Your task to perform on an android device: refresh tabs in the chrome app Image 0: 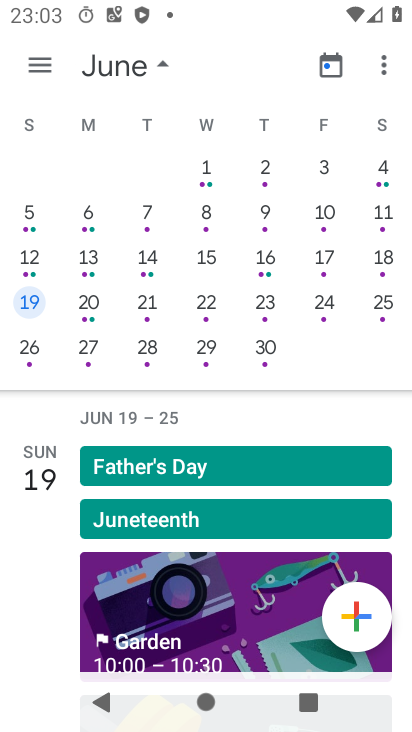
Step 0: press home button
Your task to perform on an android device: refresh tabs in the chrome app Image 1: 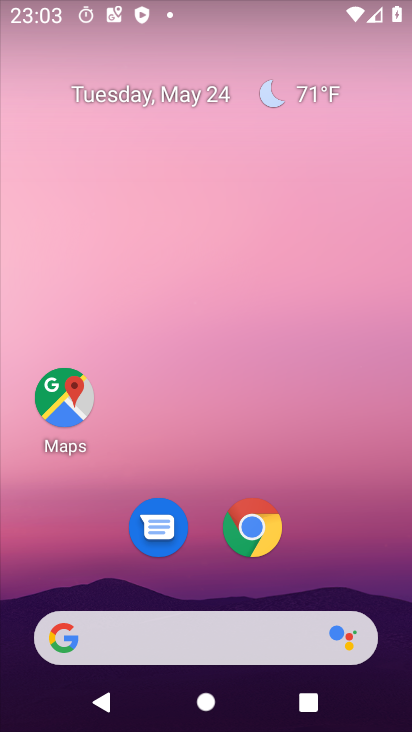
Step 1: click (256, 535)
Your task to perform on an android device: refresh tabs in the chrome app Image 2: 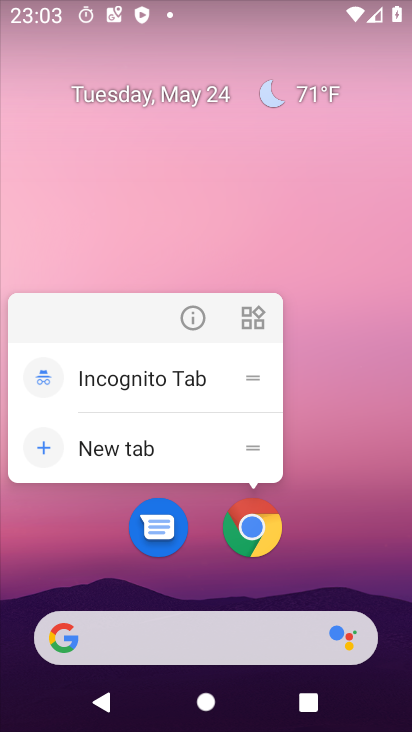
Step 2: click (252, 531)
Your task to perform on an android device: refresh tabs in the chrome app Image 3: 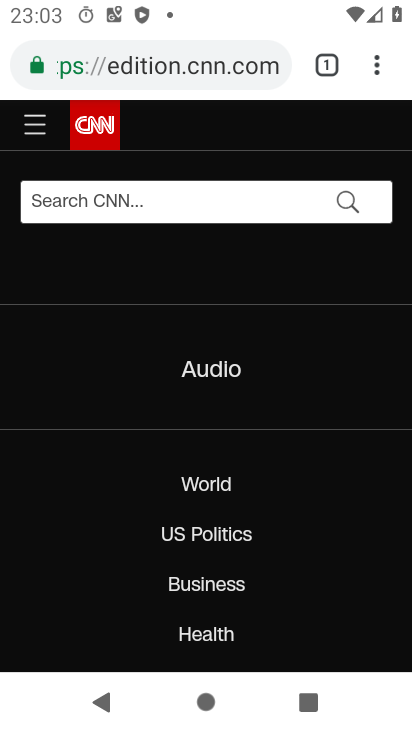
Step 3: click (388, 65)
Your task to perform on an android device: refresh tabs in the chrome app Image 4: 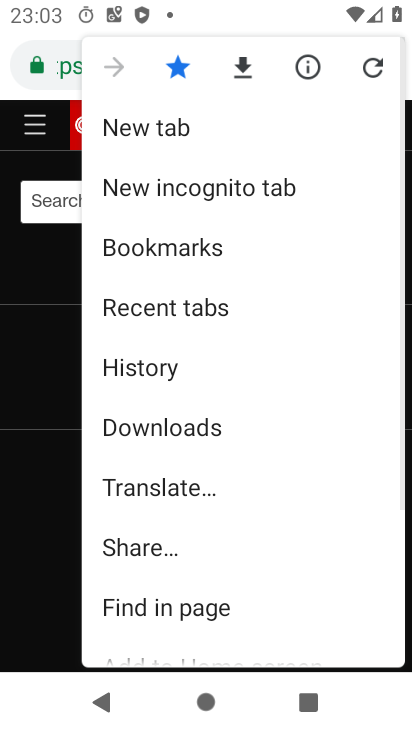
Step 4: click (375, 69)
Your task to perform on an android device: refresh tabs in the chrome app Image 5: 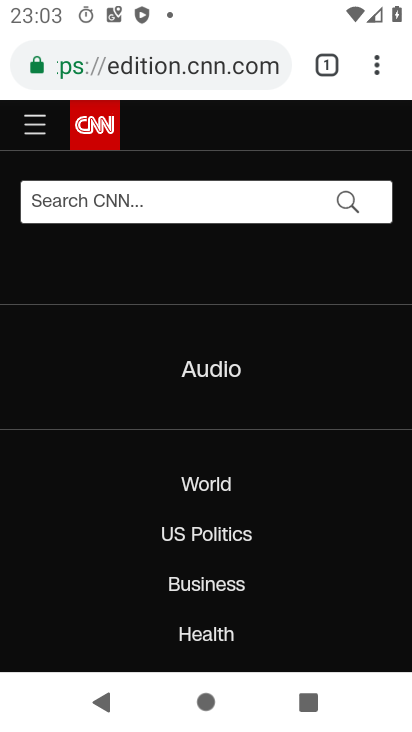
Step 5: task complete